Your task to perform on an android device: Clear all items from cart on bestbuy. Search for "usb-c" on bestbuy, select the first entry, add it to the cart, then select checkout. Image 0: 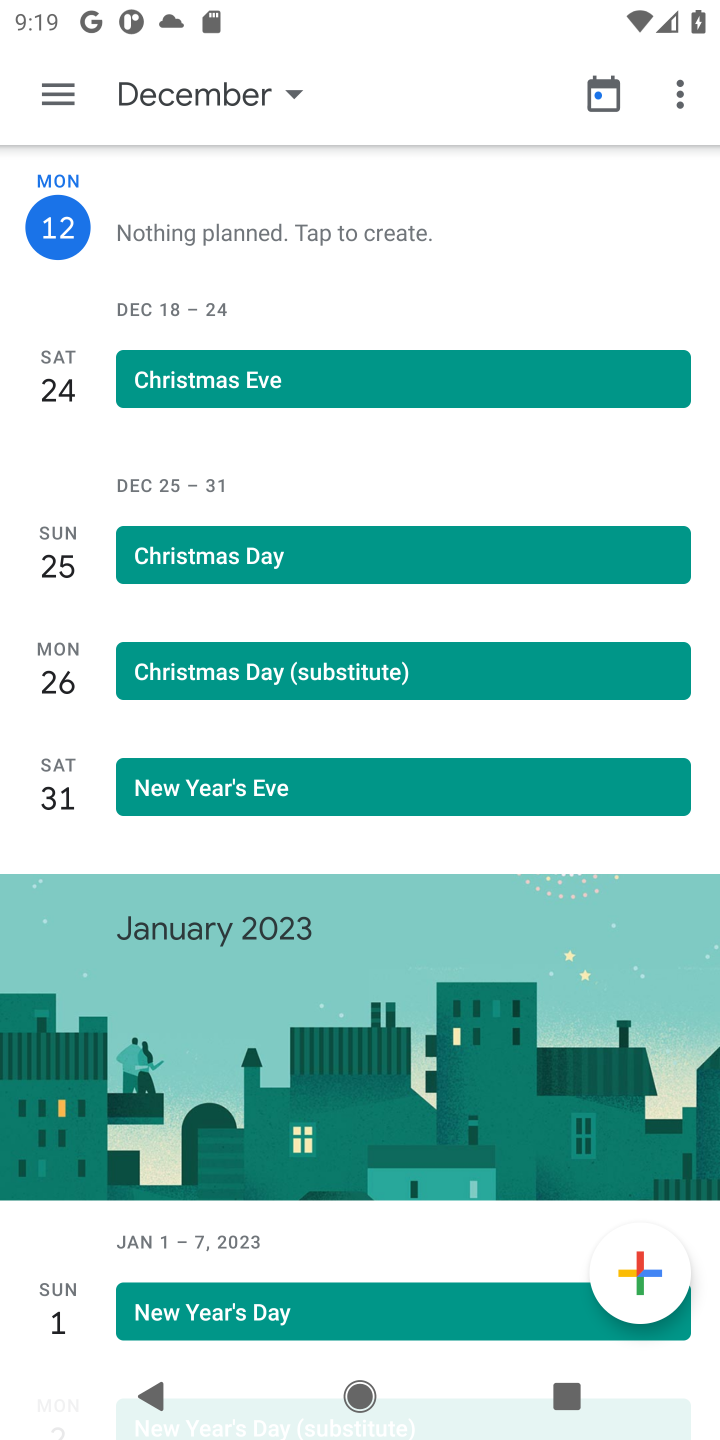
Step 0: press home button
Your task to perform on an android device: Clear all items from cart on bestbuy. Search for "usb-c" on bestbuy, select the first entry, add it to the cart, then select checkout. Image 1: 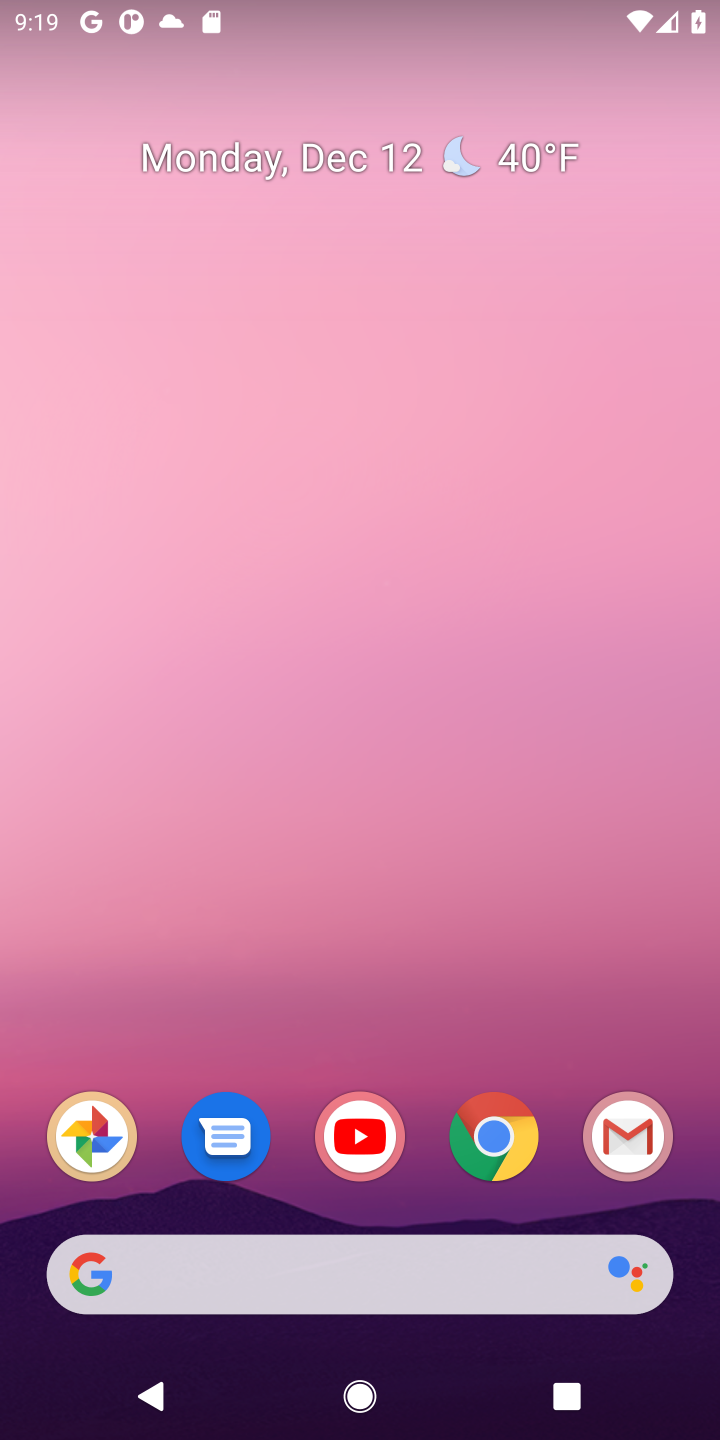
Step 1: click (497, 1136)
Your task to perform on an android device: Clear all items from cart on bestbuy. Search for "usb-c" on bestbuy, select the first entry, add it to the cart, then select checkout. Image 2: 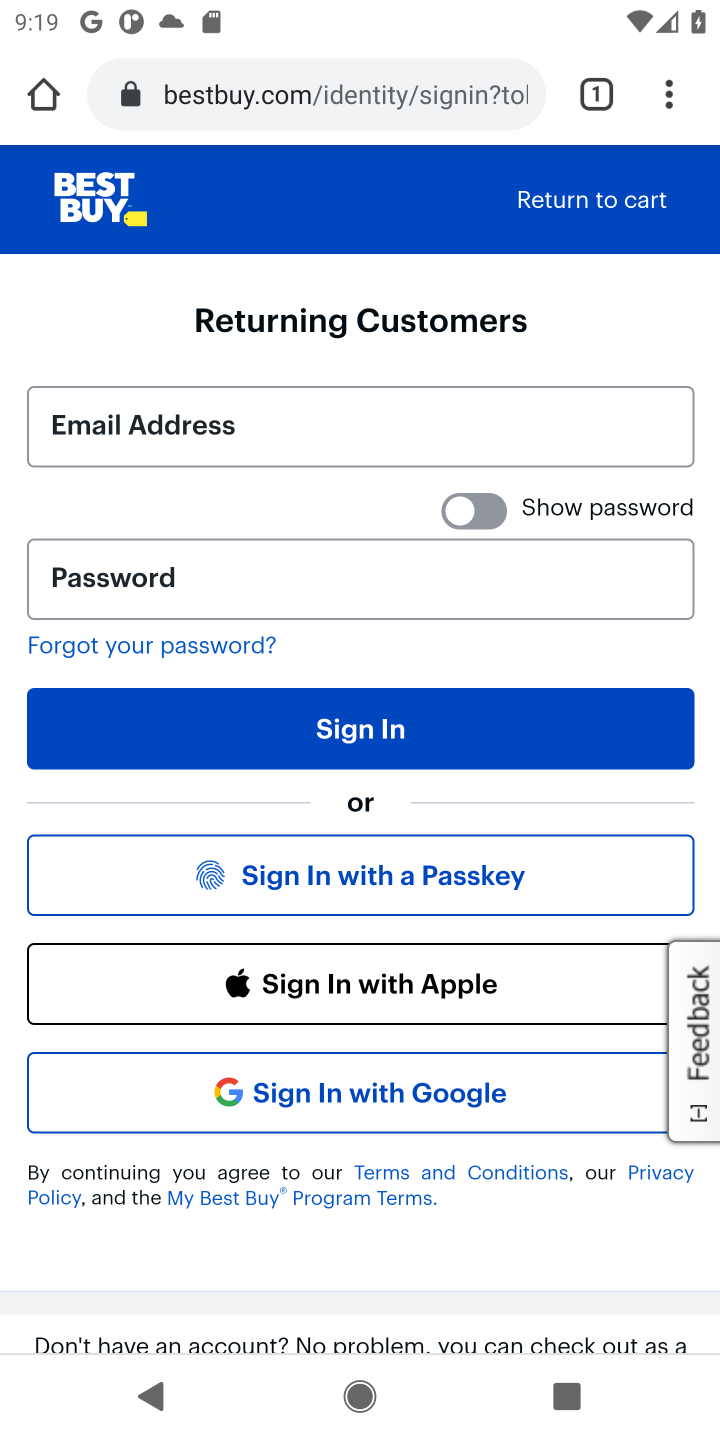
Step 2: click (579, 215)
Your task to perform on an android device: Clear all items from cart on bestbuy. Search for "usb-c" on bestbuy, select the first entry, add it to the cart, then select checkout. Image 3: 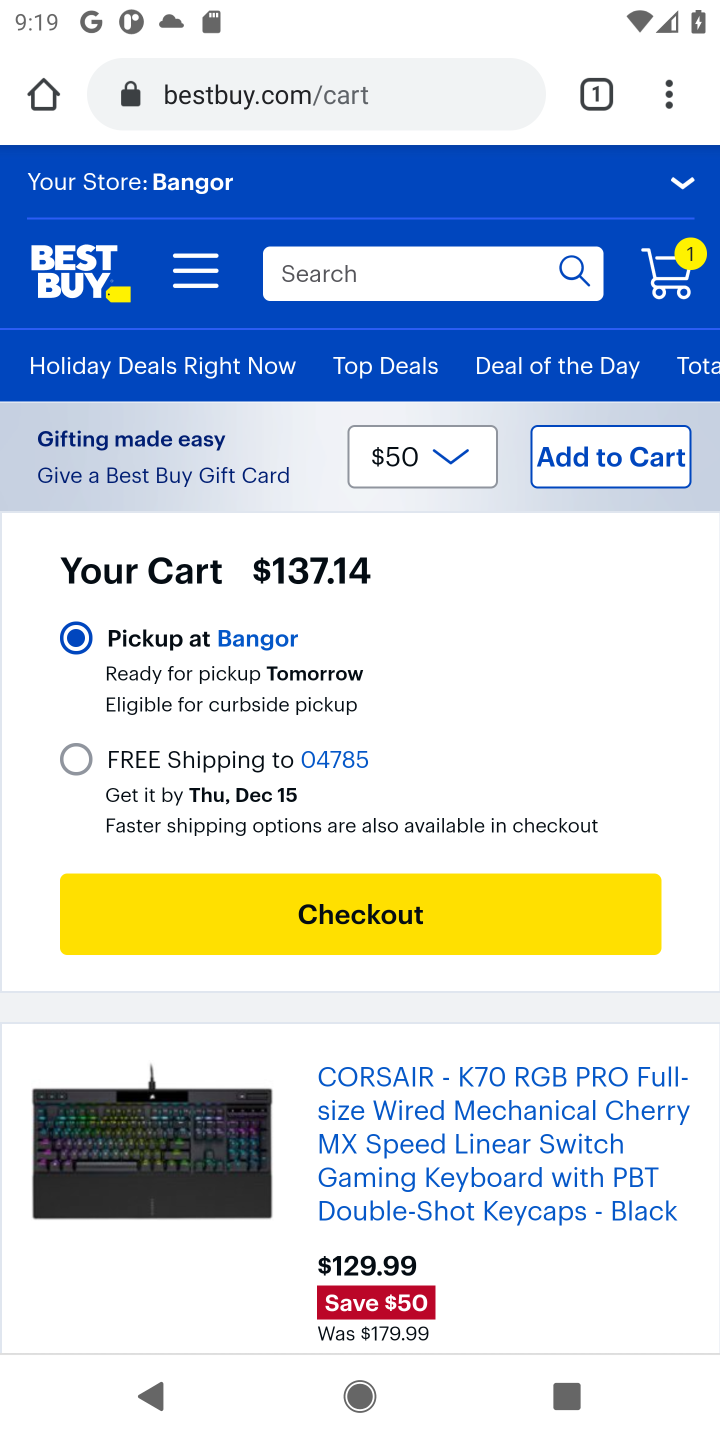
Step 3: drag from (351, 828) to (351, 350)
Your task to perform on an android device: Clear all items from cart on bestbuy. Search for "usb-c" on bestbuy, select the first entry, add it to the cart, then select checkout. Image 4: 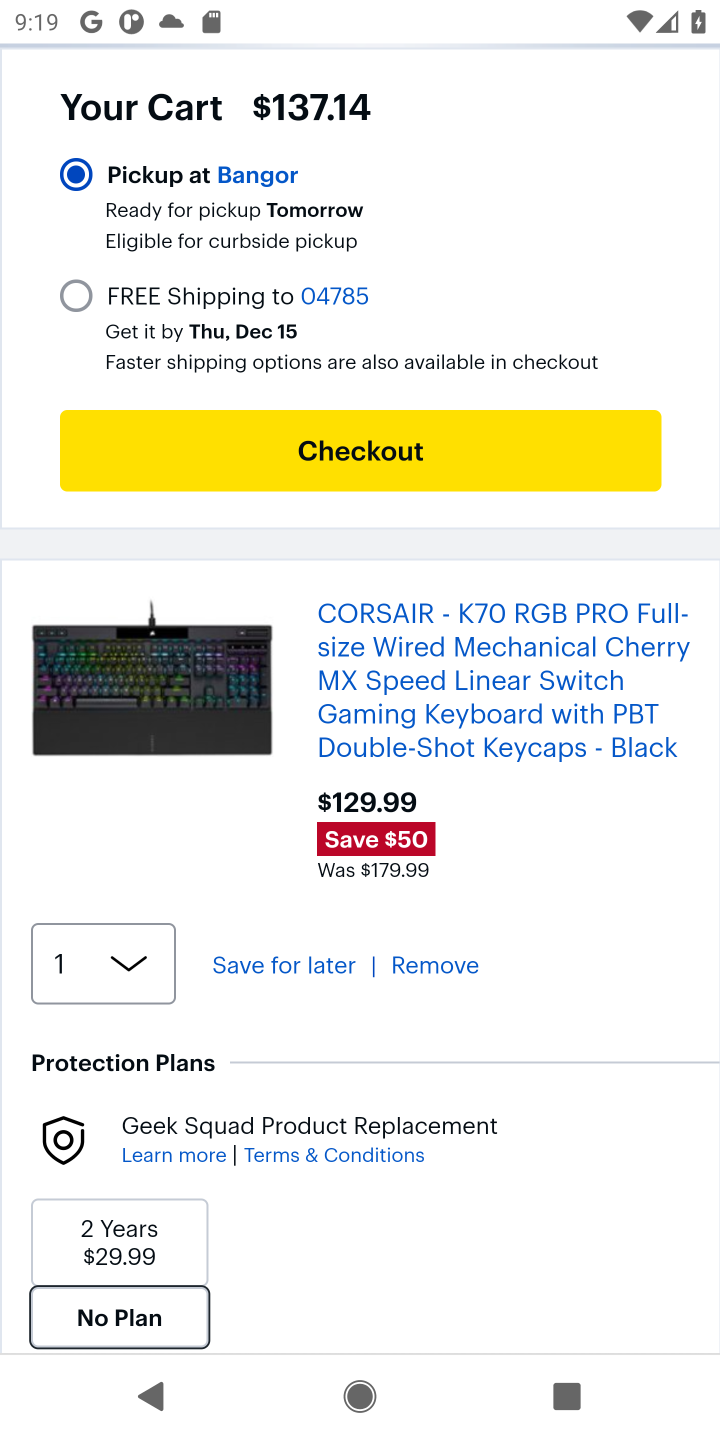
Step 4: click (438, 968)
Your task to perform on an android device: Clear all items from cart on bestbuy. Search for "usb-c" on bestbuy, select the first entry, add it to the cart, then select checkout. Image 5: 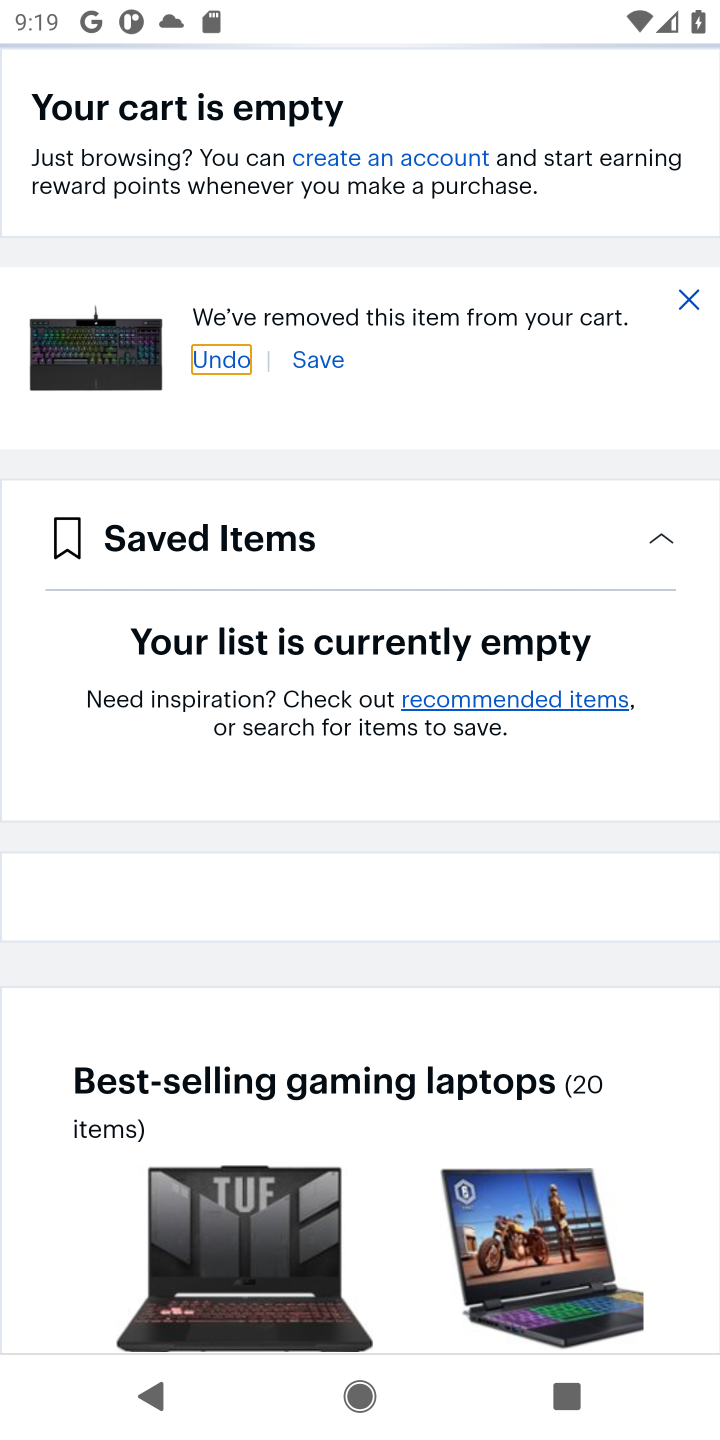
Step 5: drag from (385, 385) to (380, 1191)
Your task to perform on an android device: Clear all items from cart on bestbuy. Search for "usb-c" on bestbuy, select the first entry, add it to the cart, then select checkout. Image 6: 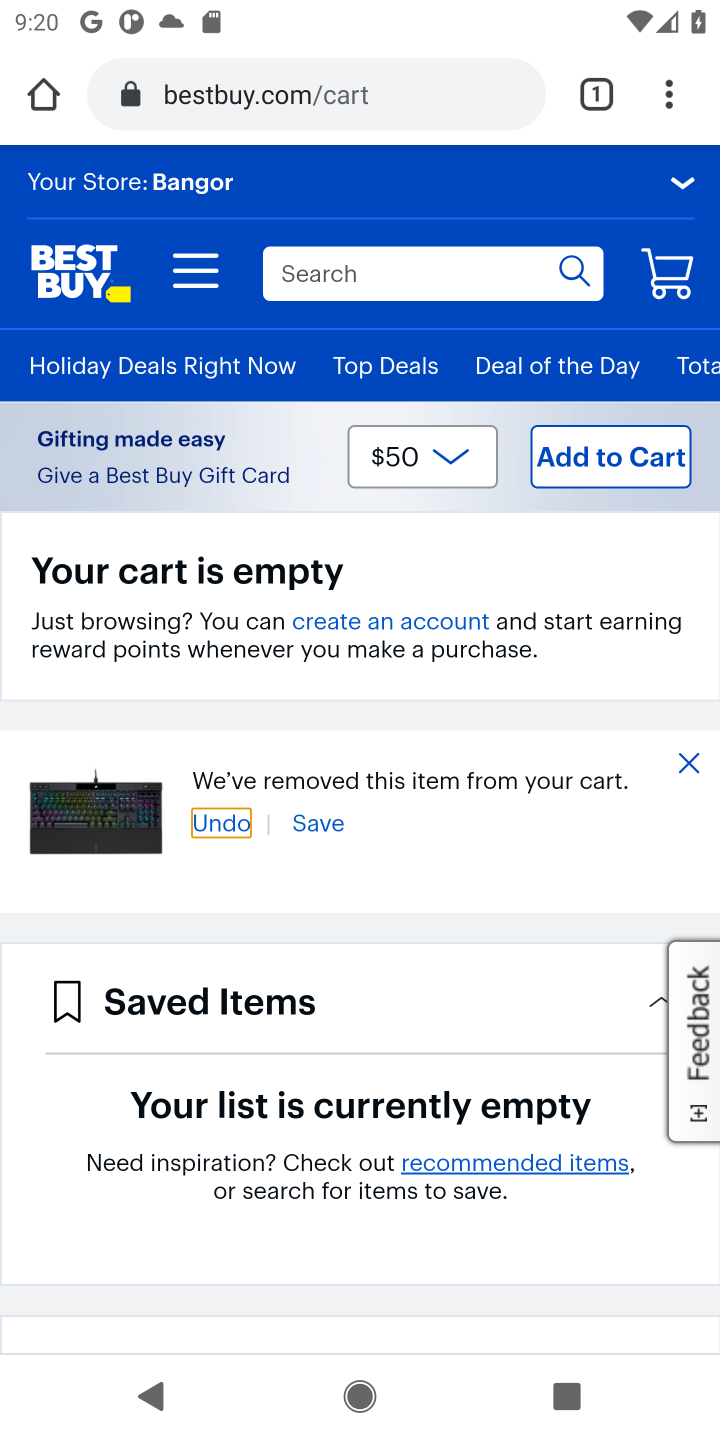
Step 6: click (306, 277)
Your task to perform on an android device: Clear all items from cart on bestbuy. Search for "usb-c" on bestbuy, select the first entry, add it to the cart, then select checkout. Image 7: 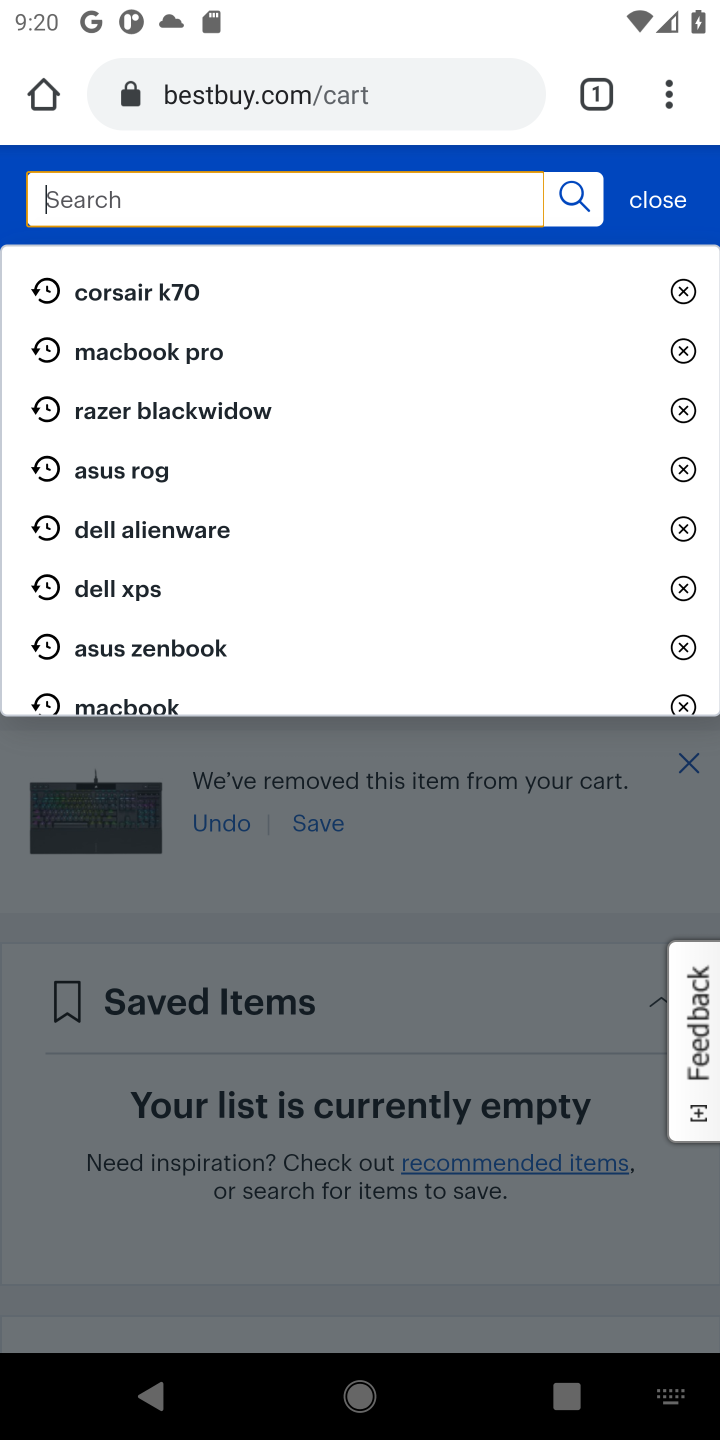
Step 7: type "usb-c"
Your task to perform on an android device: Clear all items from cart on bestbuy. Search for "usb-c" on bestbuy, select the first entry, add it to the cart, then select checkout. Image 8: 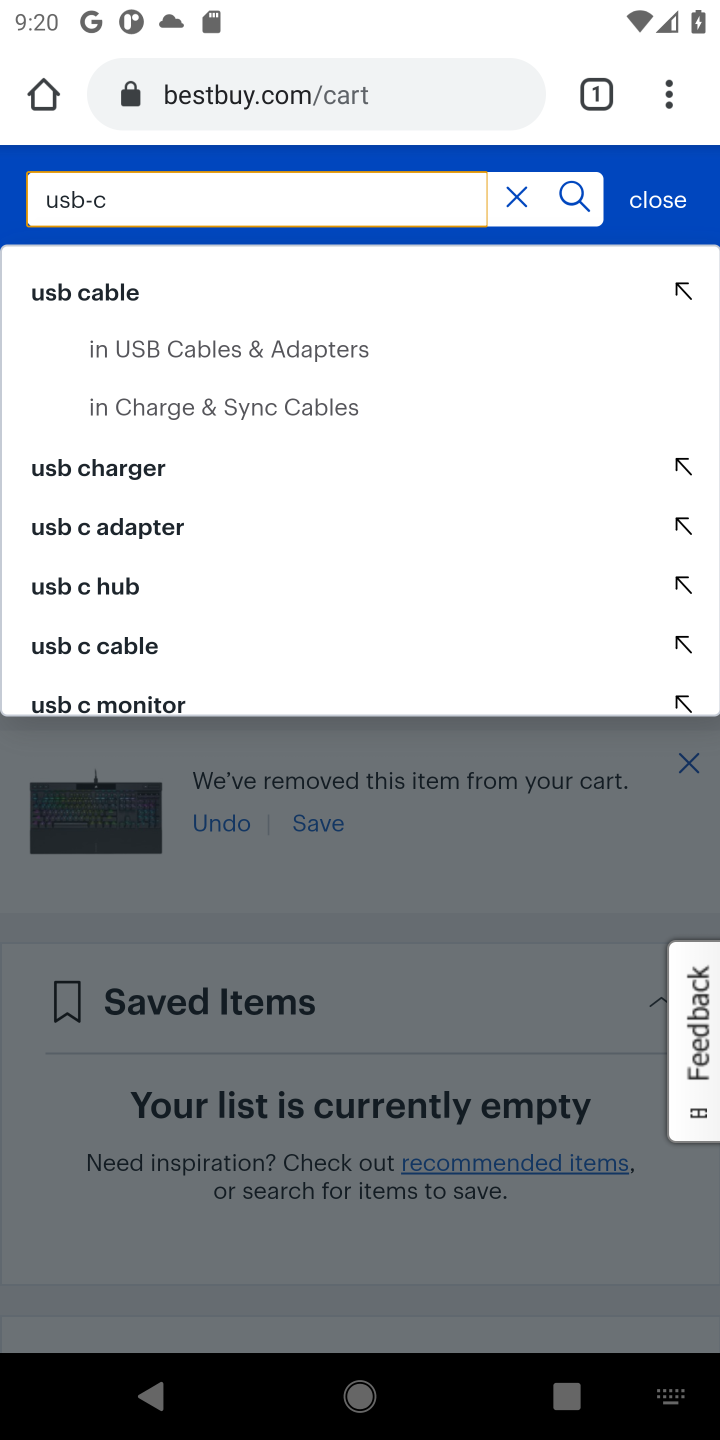
Step 8: click (575, 212)
Your task to perform on an android device: Clear all items from cart on bestbuy. Search for "usb-c" on bestbuy, select the first entry, add it to the cart, then select checkout. Image 9: 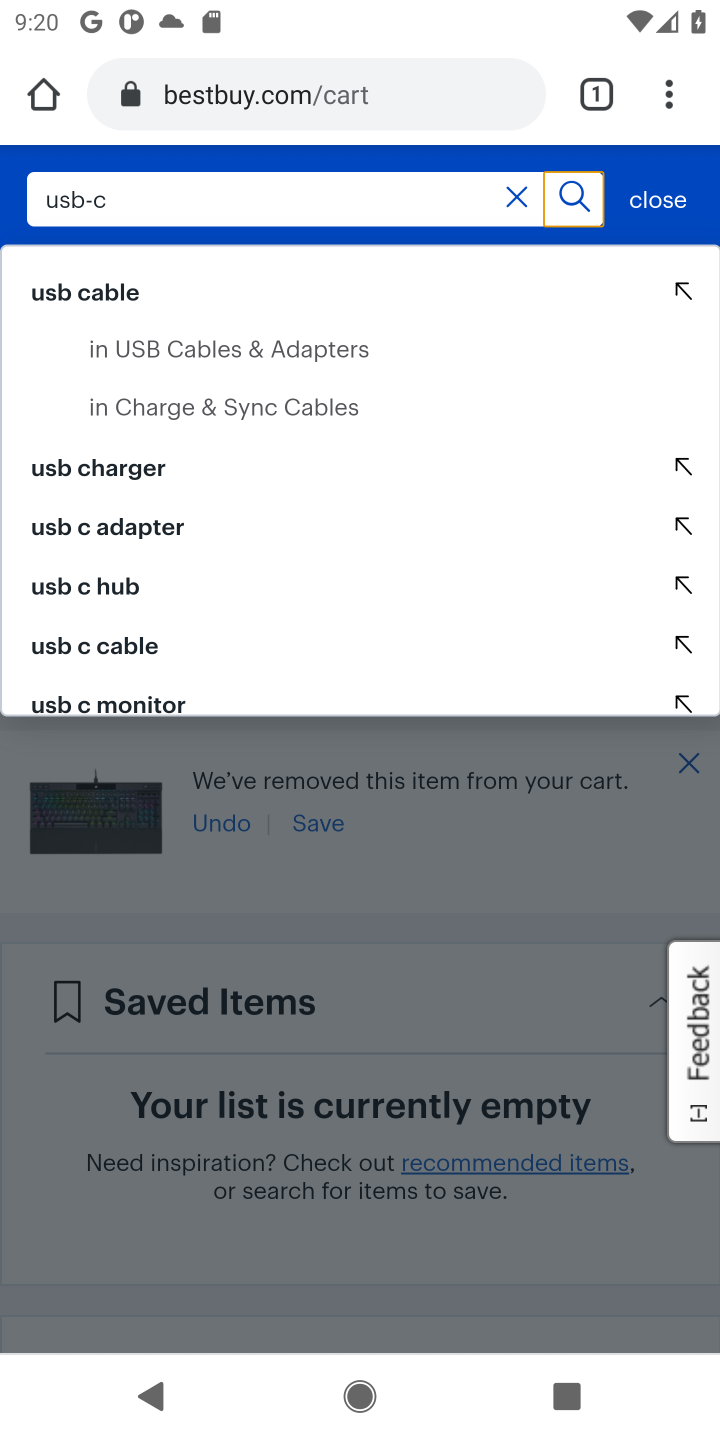
Step 9: click (580, 191)
Your task to perform on an android device: Clear all items from cart on bestbuy. Search for "usb-c" on bestbuy, select the first entry, add it to the cart, then select checkout. Image 10: 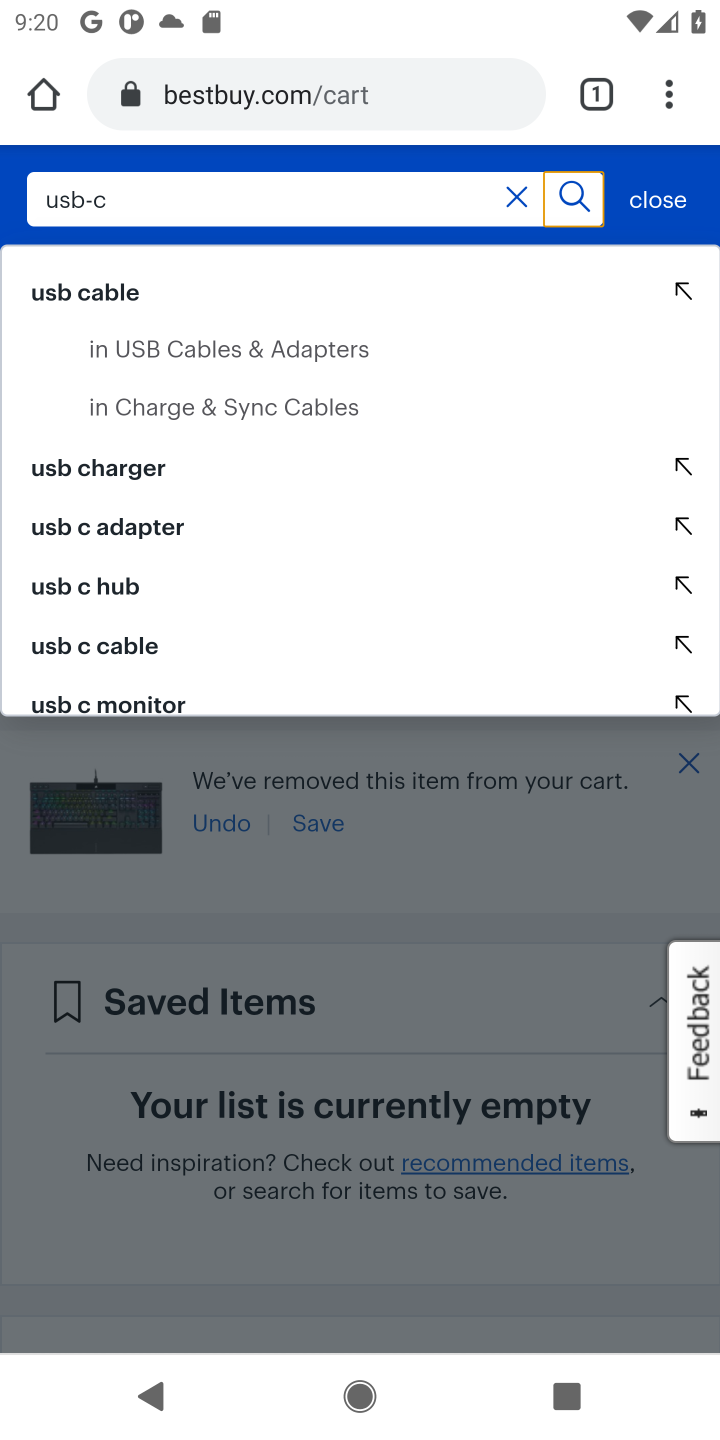
Step 10: click (567, 198)
Your task to perform on an android device: Clear all items from cart on bestbuy. Search for "usb-c" on bestbuy, select the first entry, add it to the cart, then select checkout. Image 11: 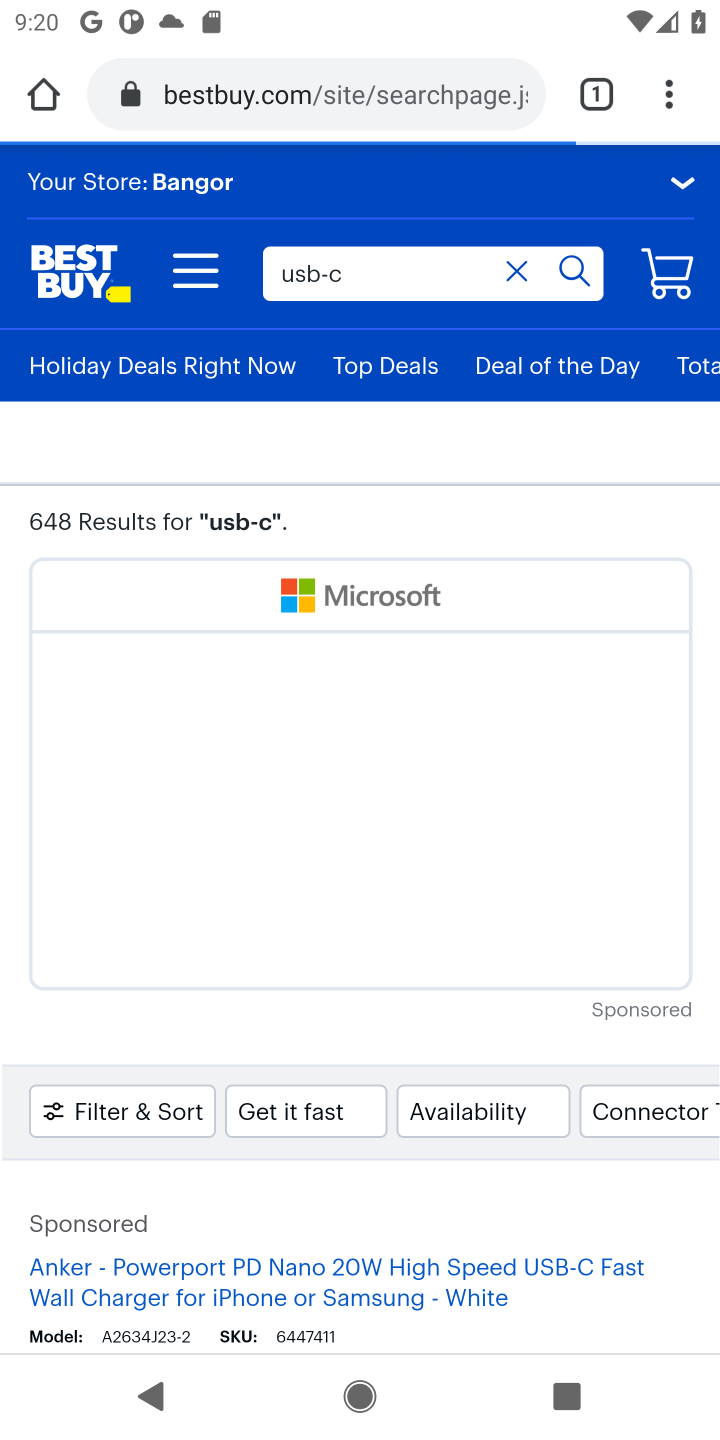
Step 11: drag from (251, 1160) to (319, 589)
Your task to perform on an android device: Clear all items from cart on bestbuy. Search for "usb-c" on bestbuy, select the first entry, add it to the cart, then select checkout. Image 12: 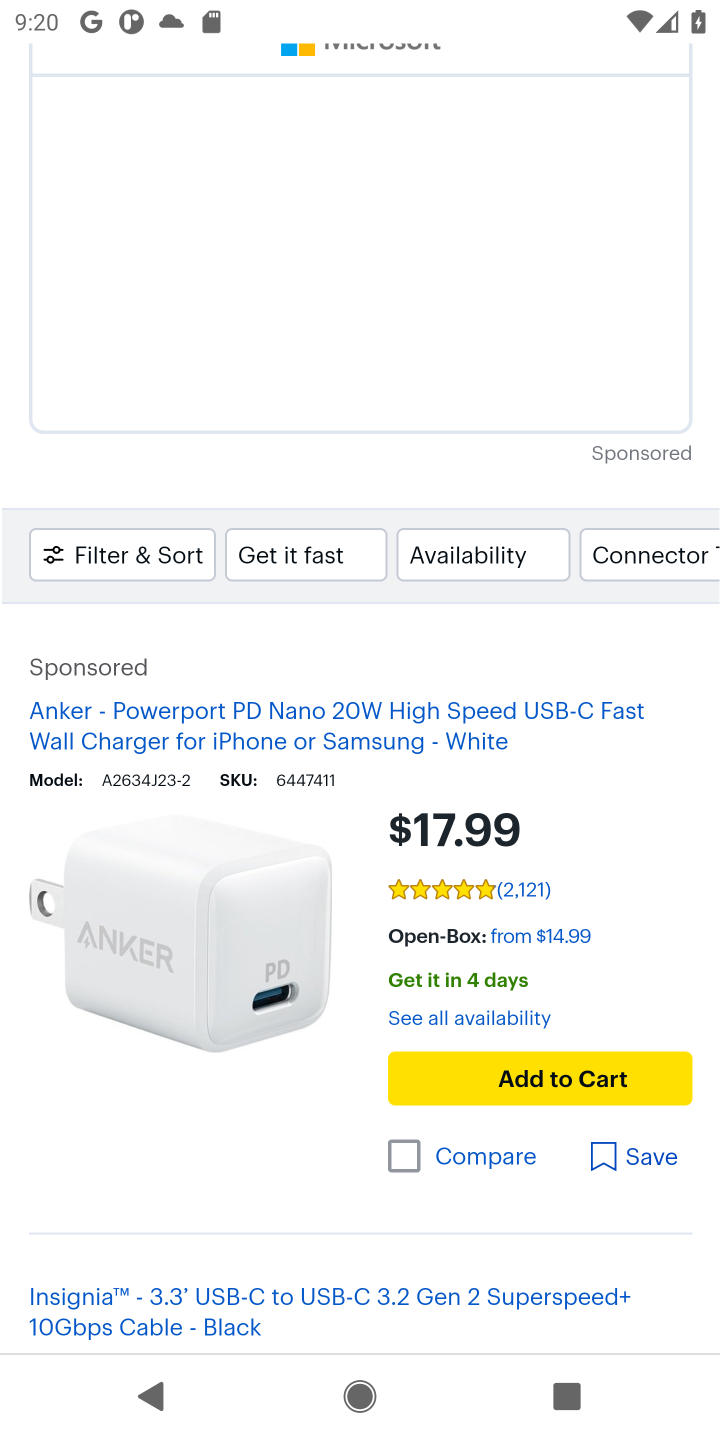
Step 12: click (540, 1071)
Your task to perform on an android device: Clear all items from cart on bestbuy. Search for "usb-c" on bestbuy, select the first entry, add it to the cart, then select checkout. Image 13: 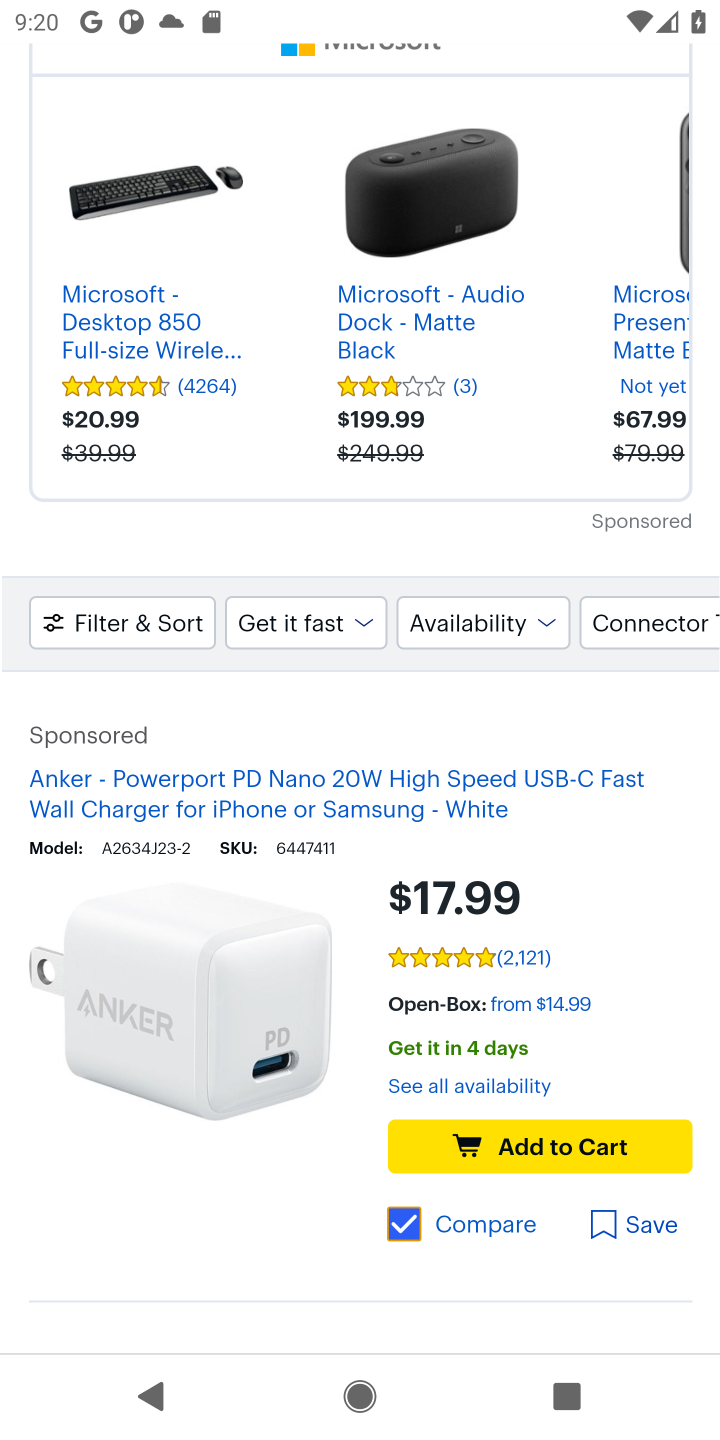
Step 13: click (567, 1138)
Your task to perform on an android device: Clear all items from cart on bestbuy. Search for "usb-c" on bestbuy, select the first entry, add it to the cart, then select checkout. Image 14: 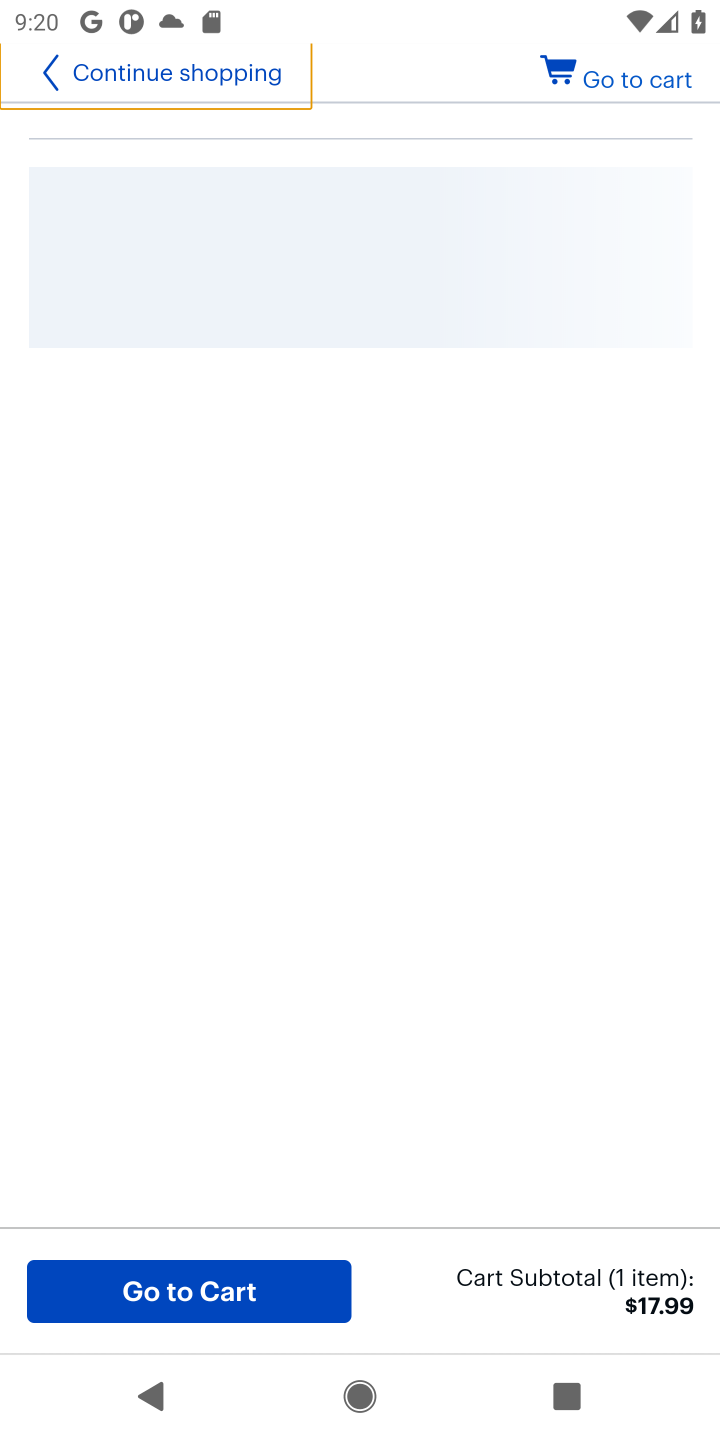
Step 14: drag from (459, 867) to (464, 656)
Your task to perform on an android device: Clear all items from cart on bestbuy. Search for "usb-c" on bestbuy, select the first entry, add it to the cart, then select checkout. Image 15: 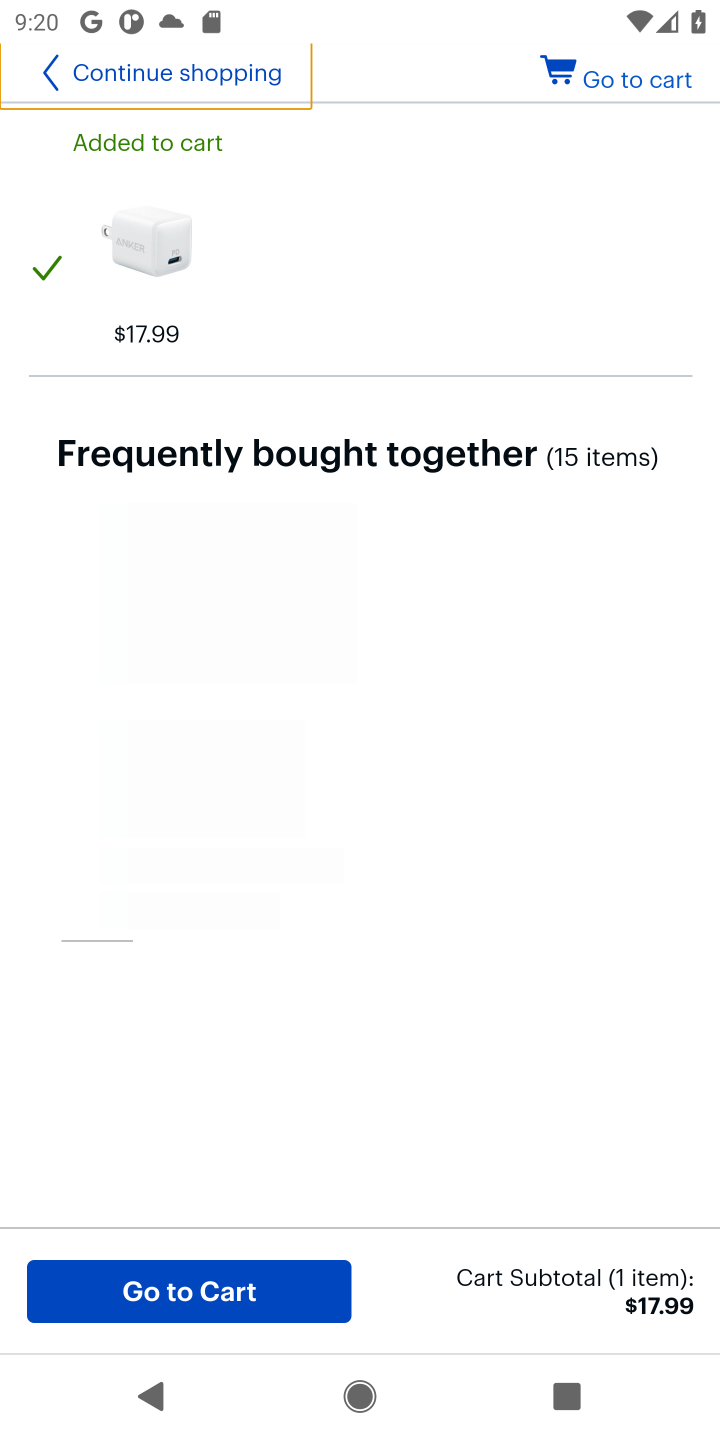
Step 15: click (670, 76)
Your task to perform on an android device: Clear all items from cart on bestbuy. Search for "usb-c" on bestbuy, select the first entry, add it to the cart, then select checkout. Image 16: 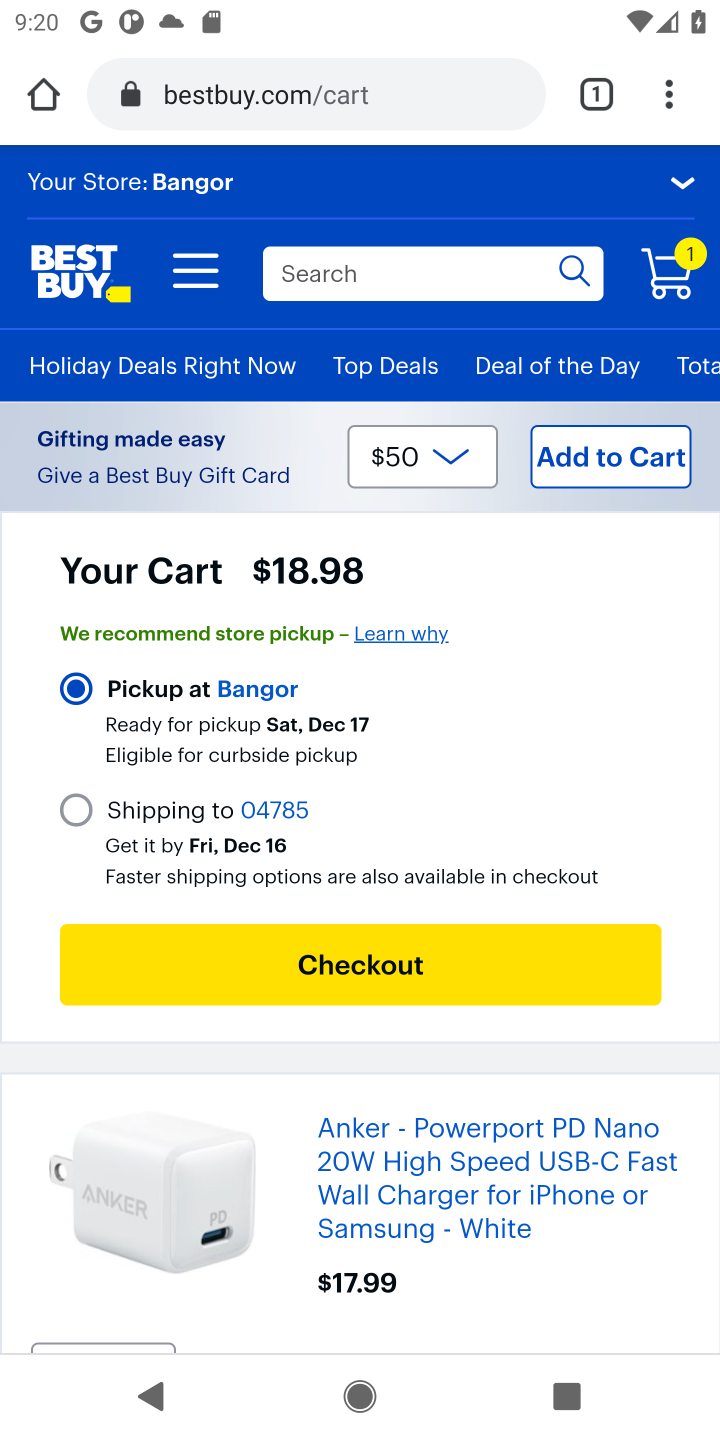
Step 16: click (348, 962)
Your task to perform on an android device: Clear all items from cart on bestbuy. Search for "usb-c" on bestbuy, select the first entry, add it to the cart, then select checkout. Image 17: 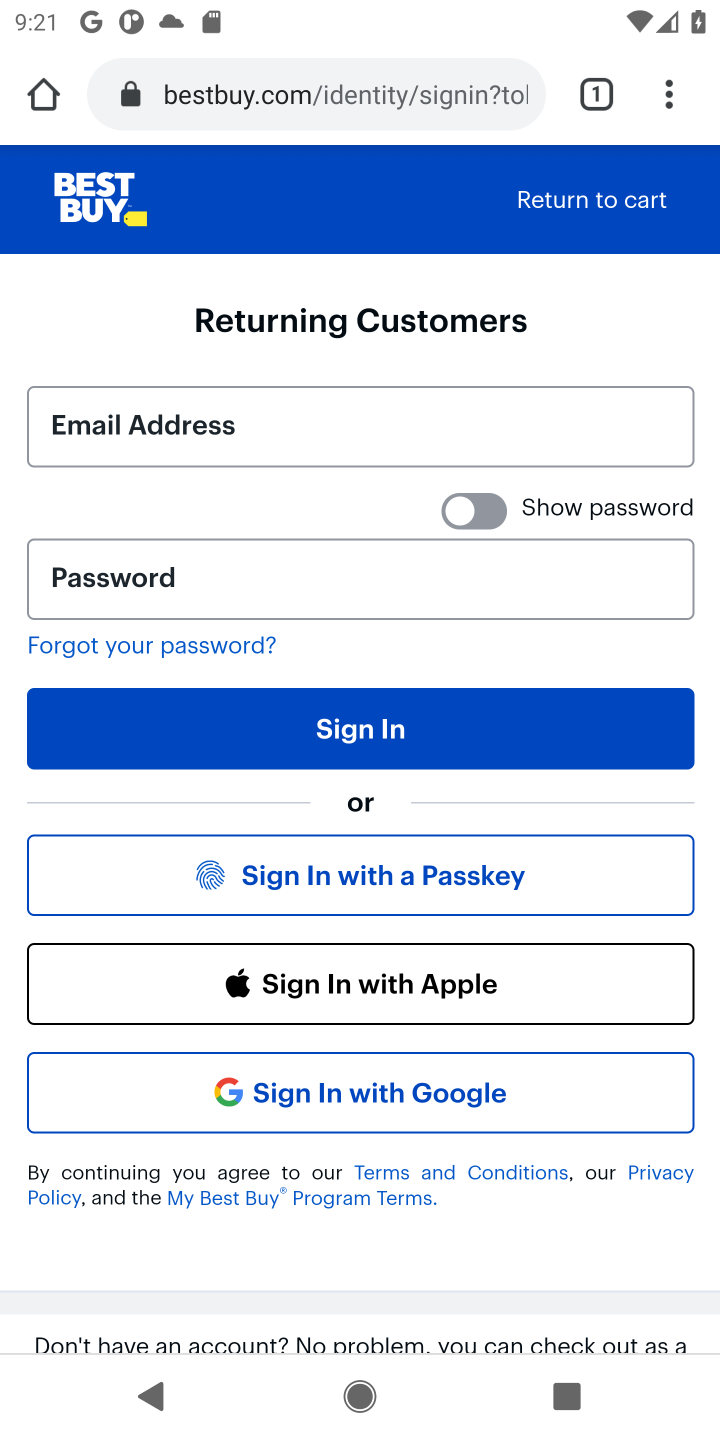
Step 17: task complete